Your task to perform on an android device: turn off notifications in google photos Image 0: 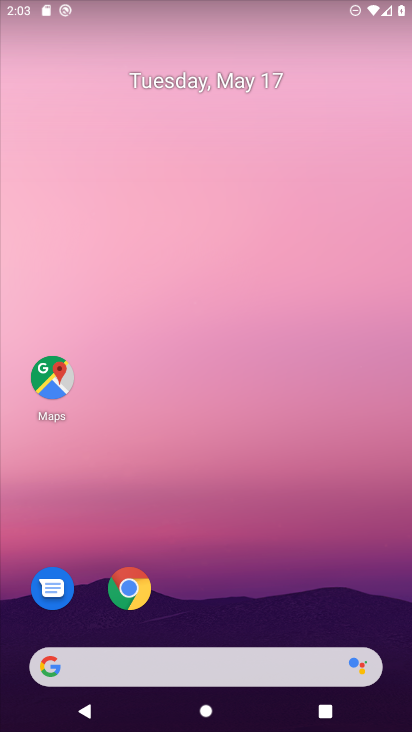
Step 0: drag from (203, 636) to (193, 99)
Your task to perform on an android device: turn off notifications in google photos Image 1: 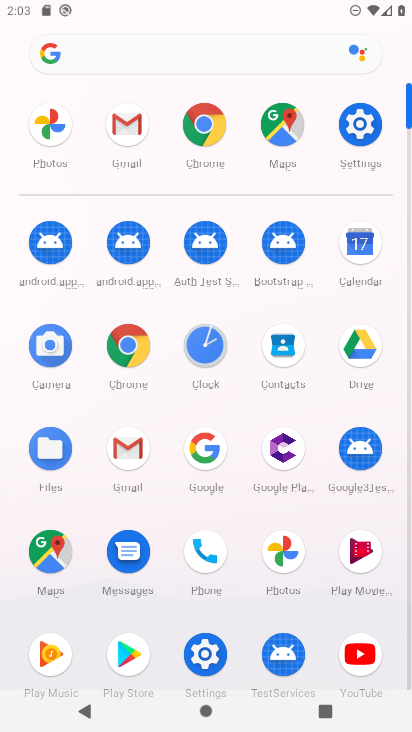
Step 1: click (282, 561)
Your task to perform on an android device: turn off notifications in google photos Image 2: 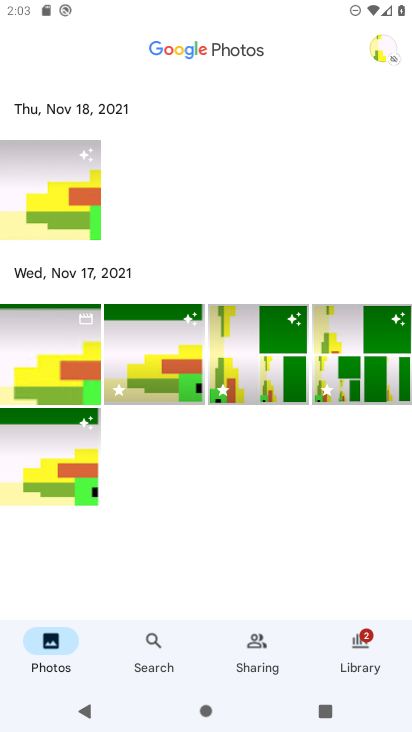
Step 2: click (387, 49)
Your task to perform on an android device: turn off notifications in google photos Image 3: 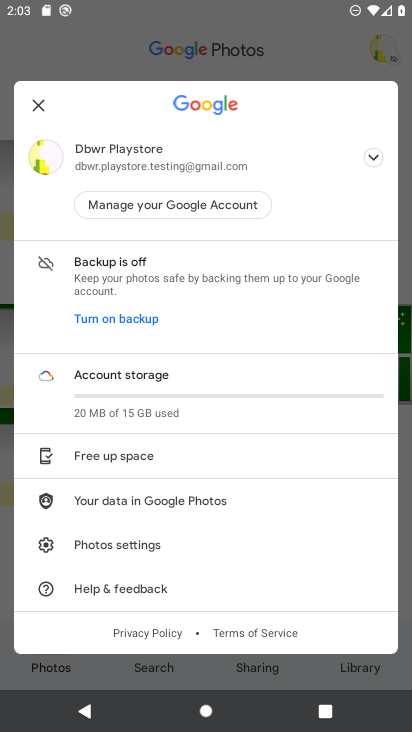
Step 3: click (116, 538)
Your task to perform on an android device: turn off notifications in google photos Image 4: 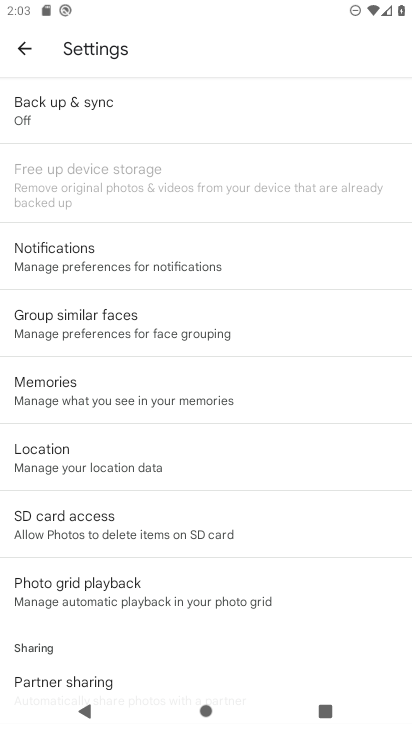
Step 4: click (139, 261)
Your task to perform on an android device: turn off notifications in google photos Image 5: 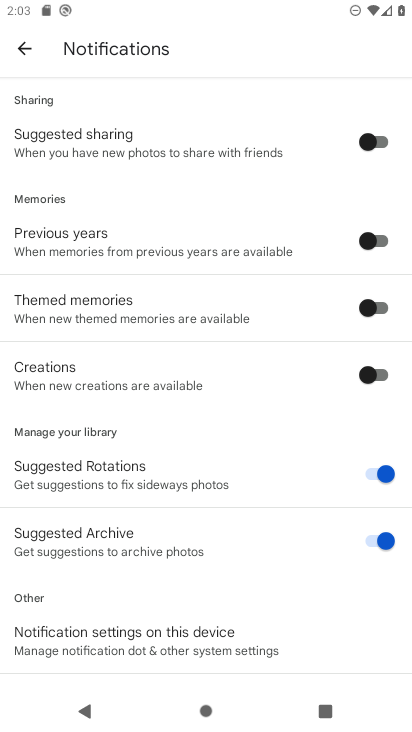
Step 5: click (170, 639)
Your task to perform on an android device: turn off notifications in google photos Image 6: 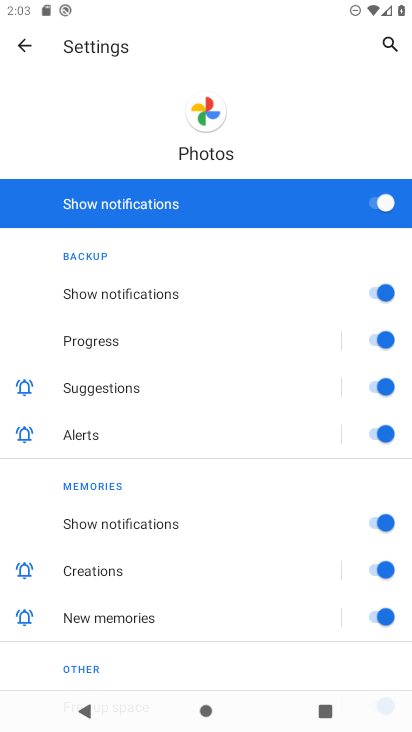
Step 6: click (389, 208)
Your task to perform on an android device: turn off notifications in google photos Image 7: 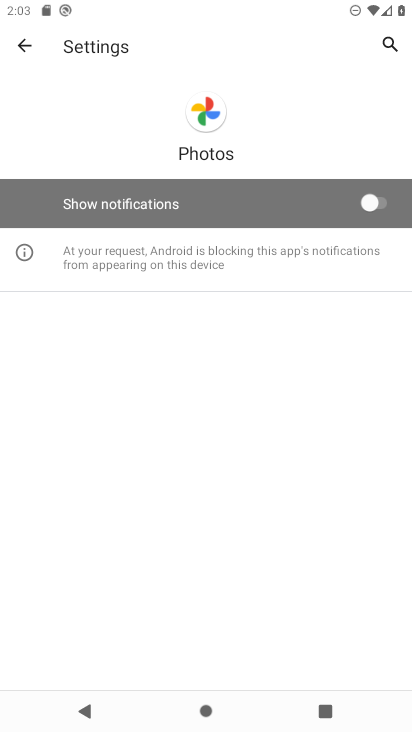
Step 7: task complete